Your task to perform on an android device: Open maps Image 0: 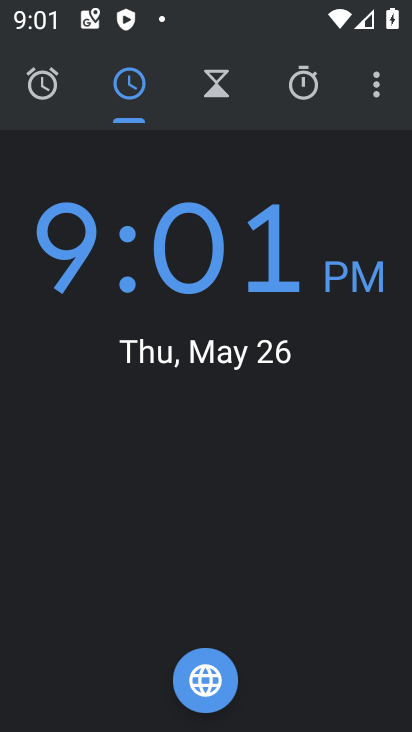
Step 0: press home button
Your task to perform on an android device: Open maps Image 1: 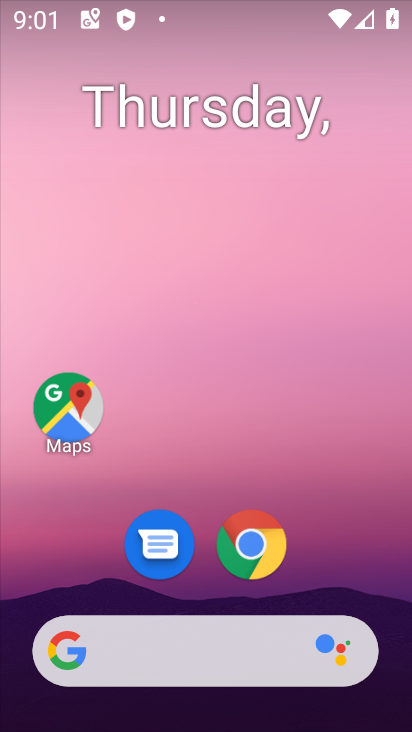
Step 1: drag from (68, 486) to (233, 58)
Your task to perform on an android device: Open maps Image 2: 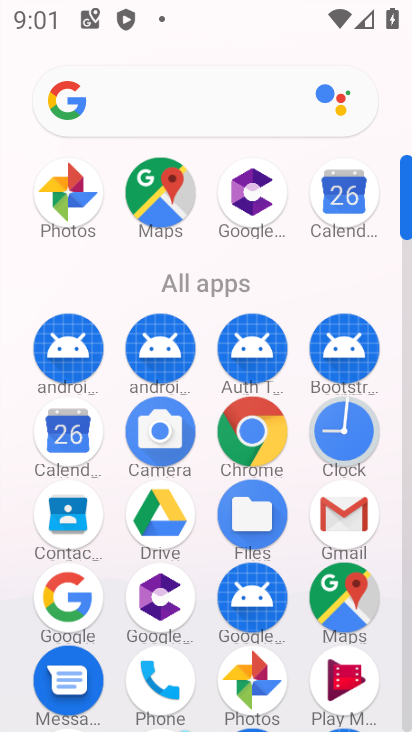
Step 2: click (157, 182)
Your task to perform on an android device: Open maps Image 3: 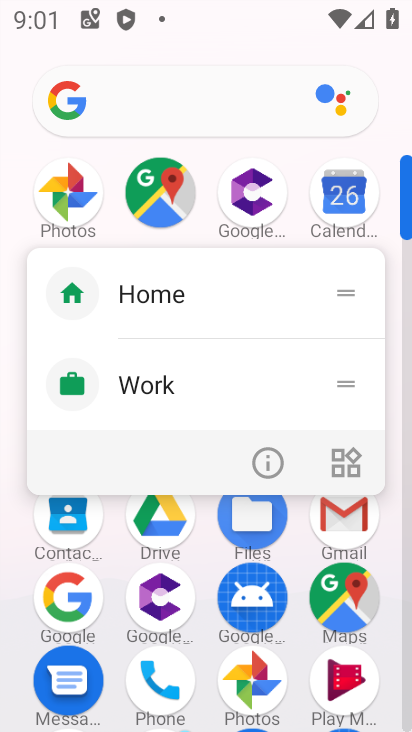
Step 3: click (145, 175)
Your task to perform on an android device: Open maps Image 4: 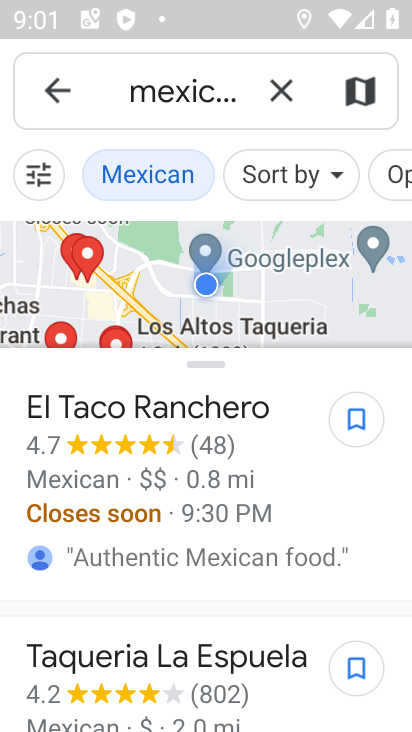
Step 4: task complete